Your task to perform on an android device: open app "ZOOM Cloud Meetings" Image 0: 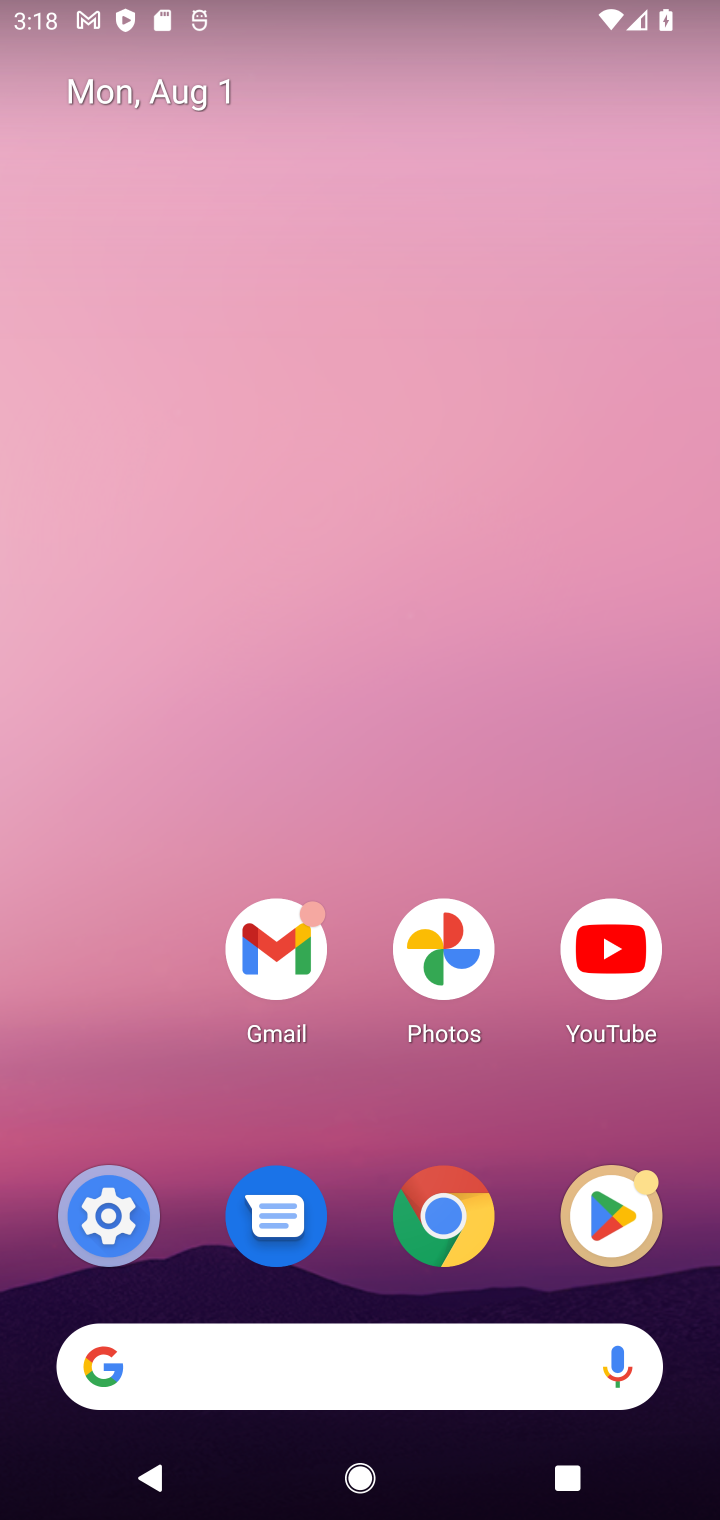
Step 0: click (425, 1375)
Your task to perform on an android device: open app "ZOOM Cloud Meetings" Image 1: 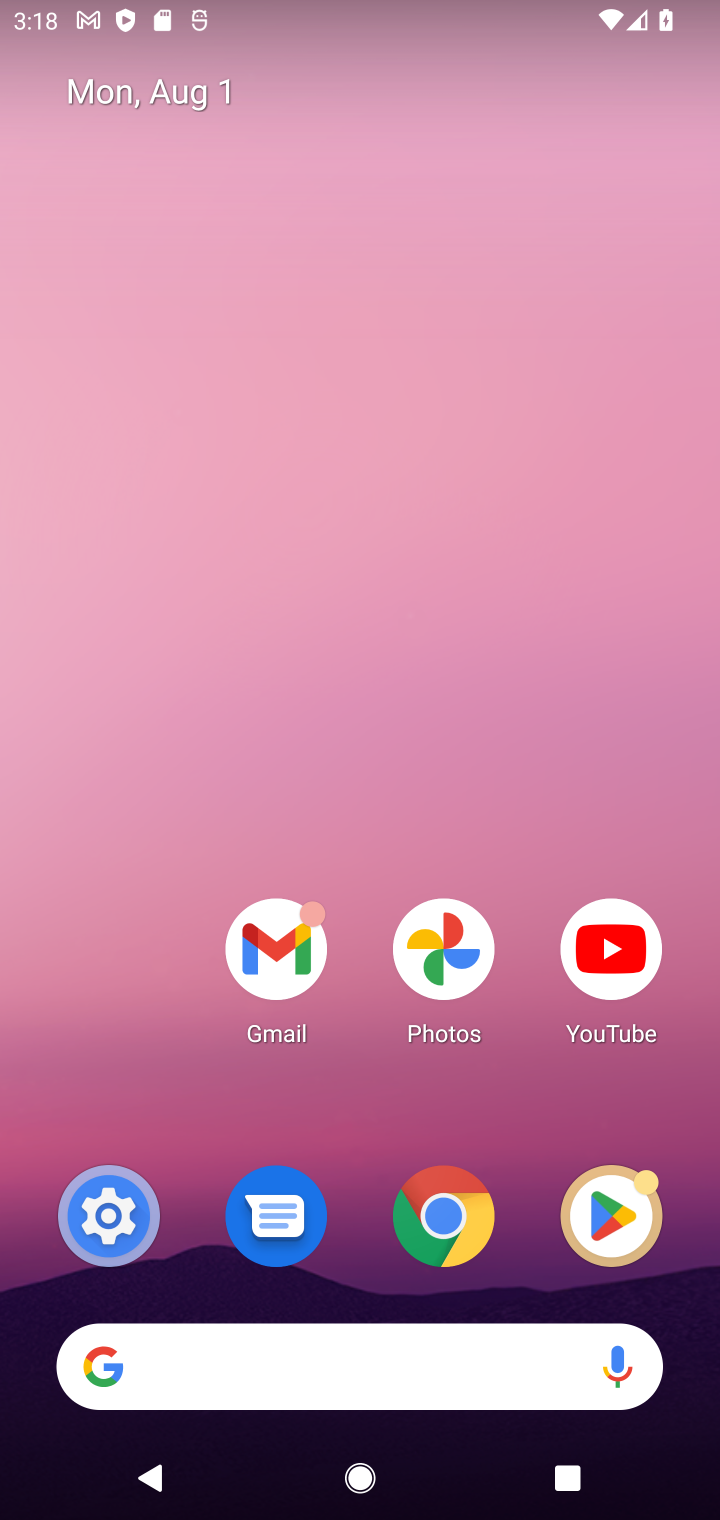
Step 1: drag from (425, 1375) to (277, 294)
Your task to perform on an android device: open app "ZOOM Cloud Meetings" Image 2: 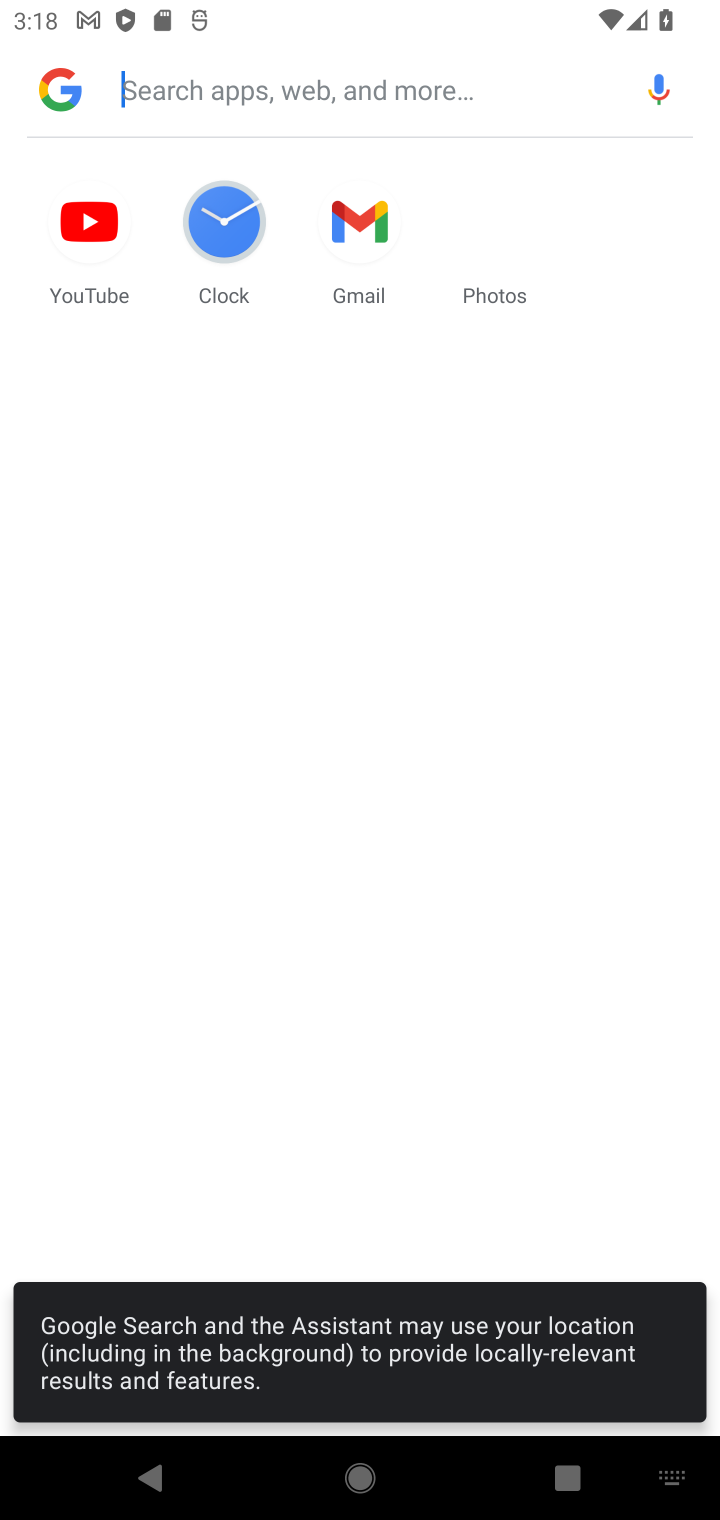
Step 2: press home button
Your task to perform on an android device: open app "ZOOM Cloud Meetings" Image 3: 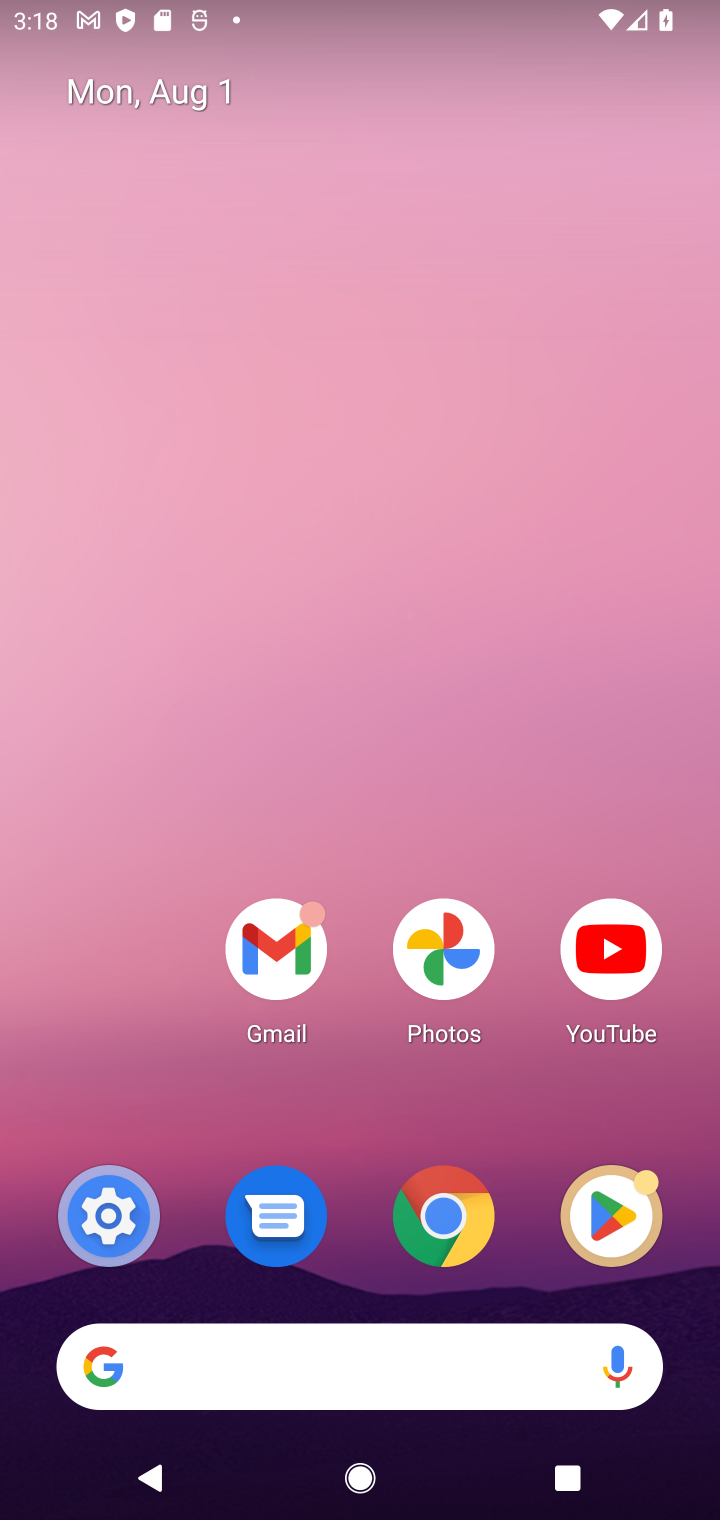
Step 3: drag from (313, 1332) to (205, 128)
Your task to perform on an android device: open app "ZOOM Cloud Meetings" Image 4: 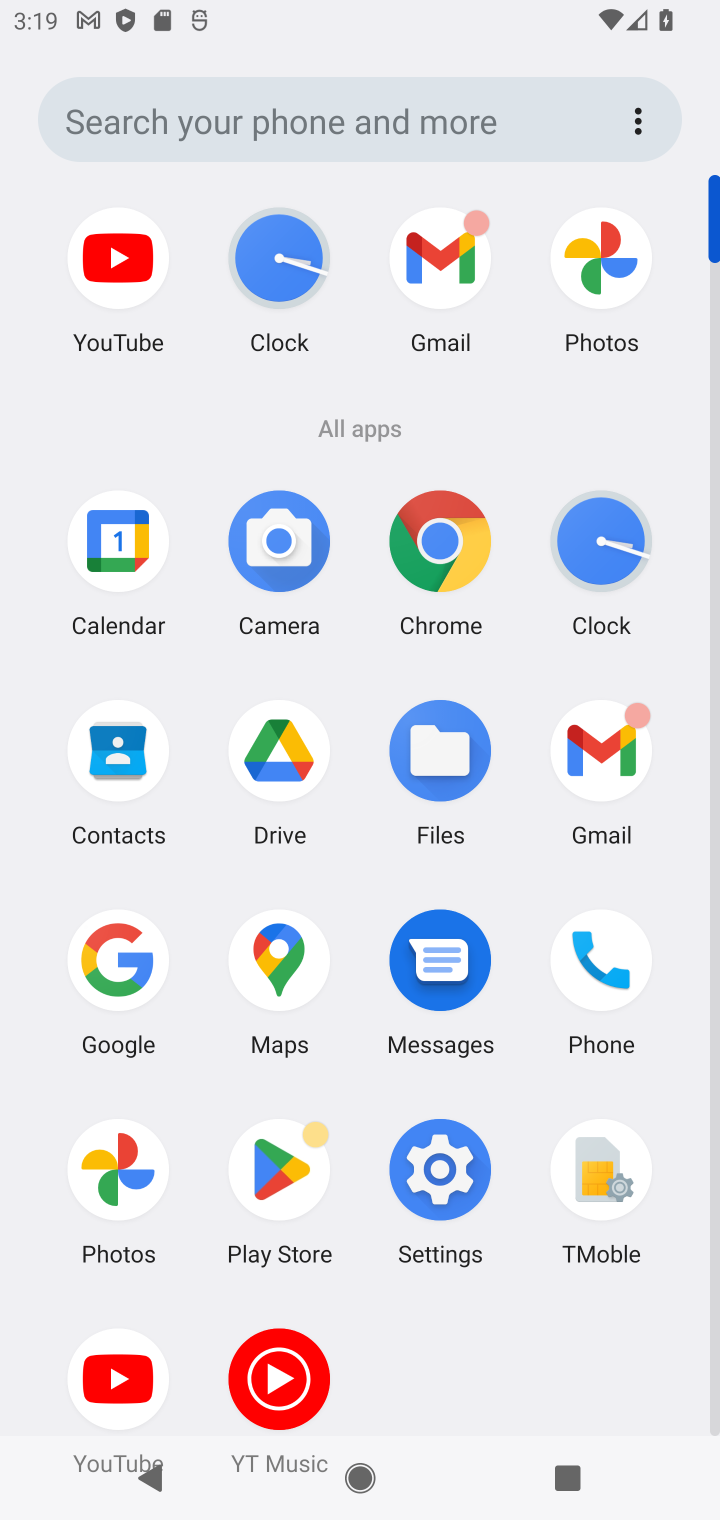
Step 4: click (282, 1183)
Your task to perform on an android device: open app "ZOOM Cloud Meetings" Image 5: 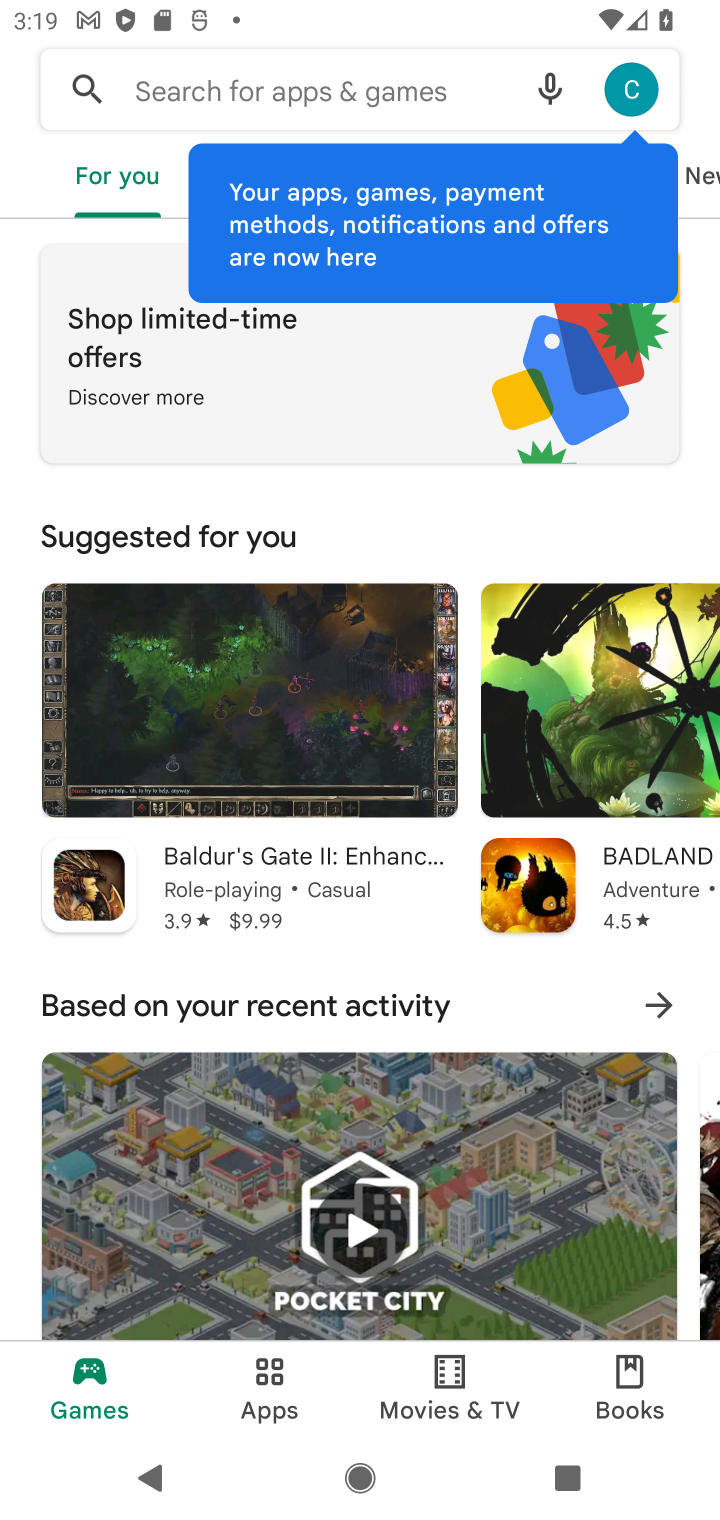
Step 5: click (411, 101)
Your task to perform on an android device: open app "ZOOM Cloud Meetings" Image 6: 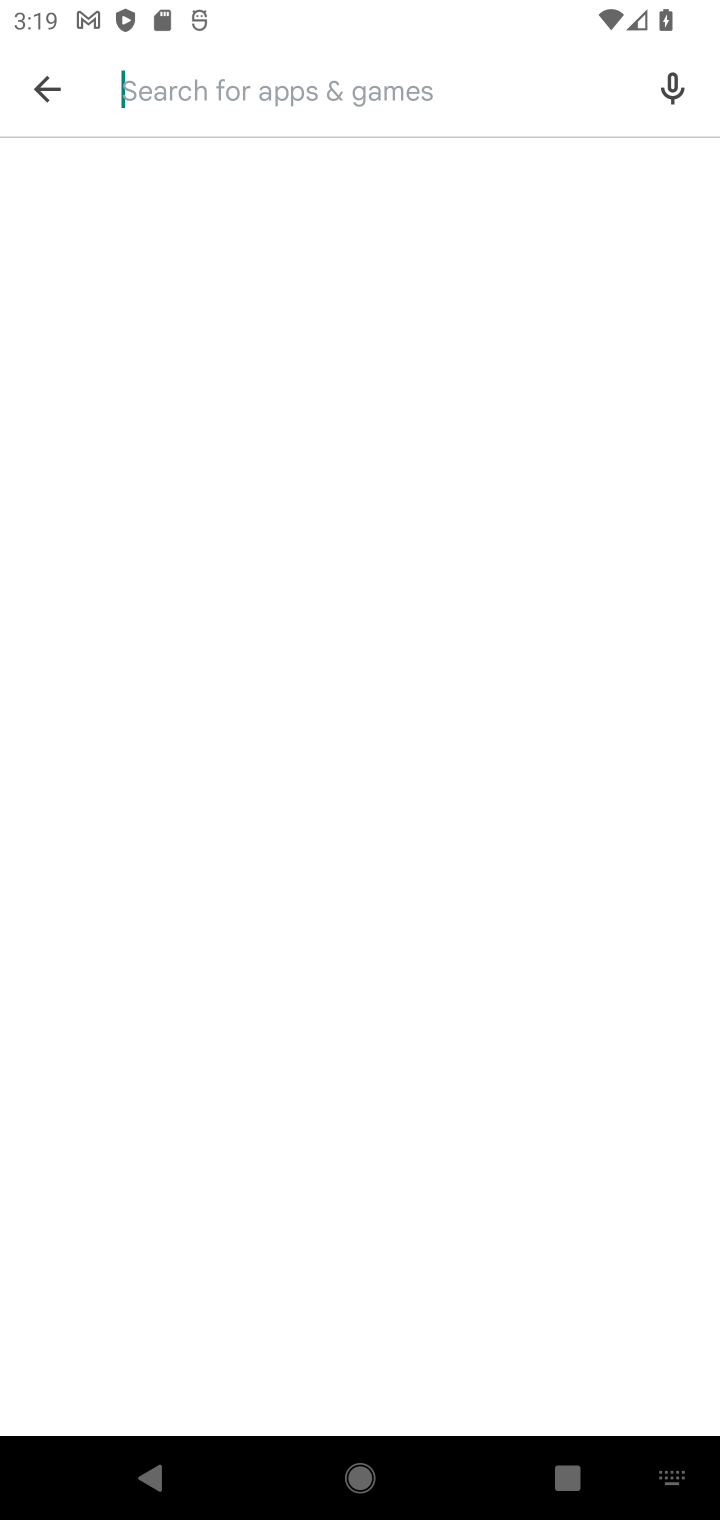
Step 6: type "zoom cloud meeting"
Your task to perform on an android device: open app "ZOOM Cloud Meetings" Image 7: 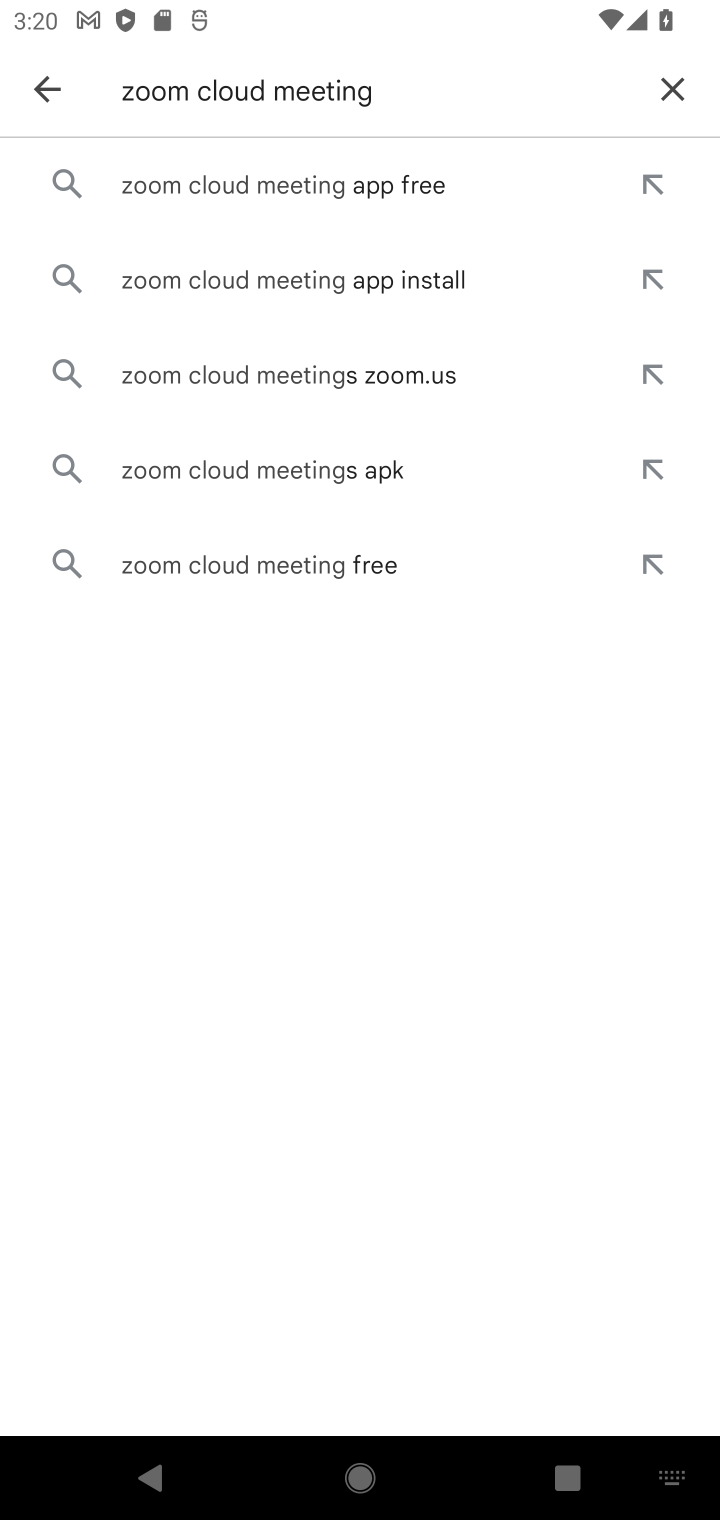
Step 7: click (174, 193)
Your task to perform on an android device: open app "ZOOM Cloud Meetings" Image 8: 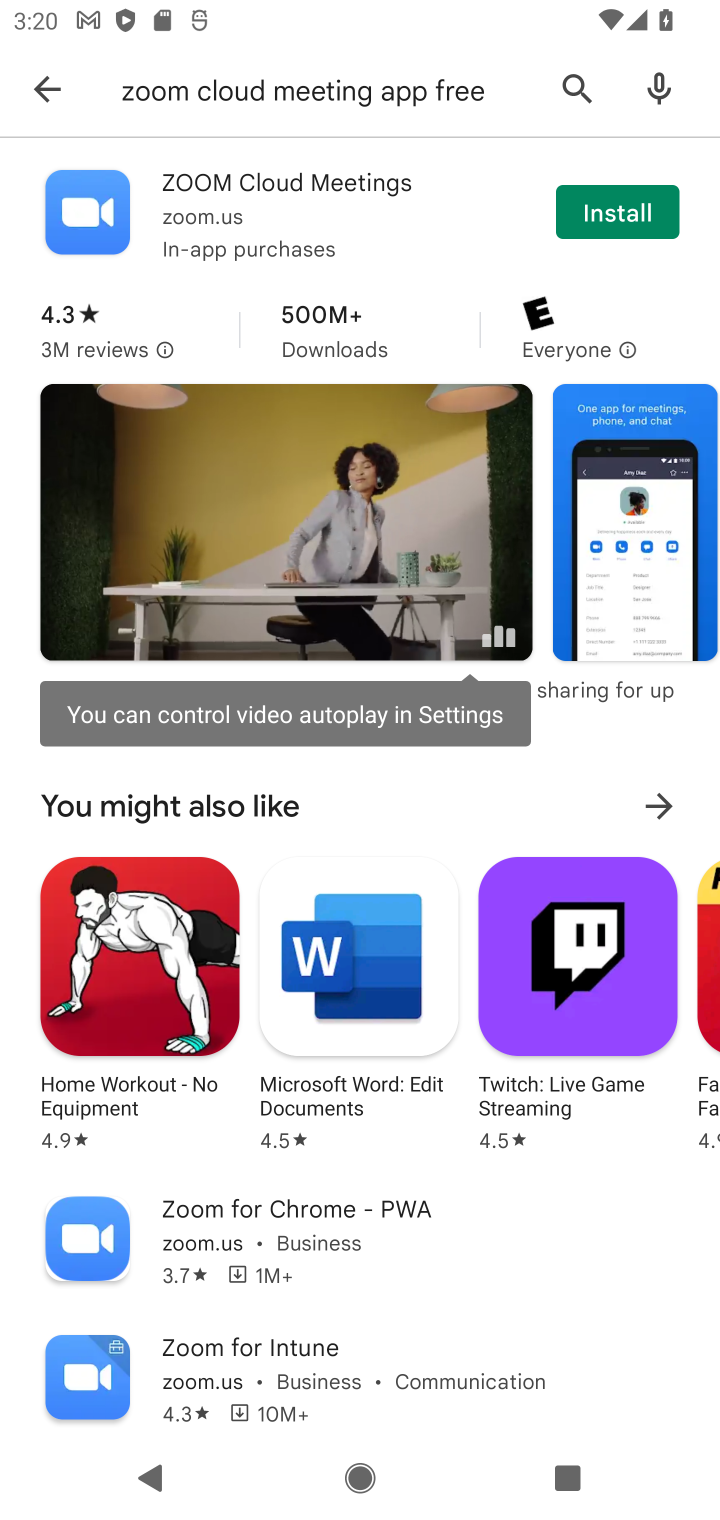
Step 8: task complete